Your task to perform on an android device: turn off notifications in google photos Image 0: 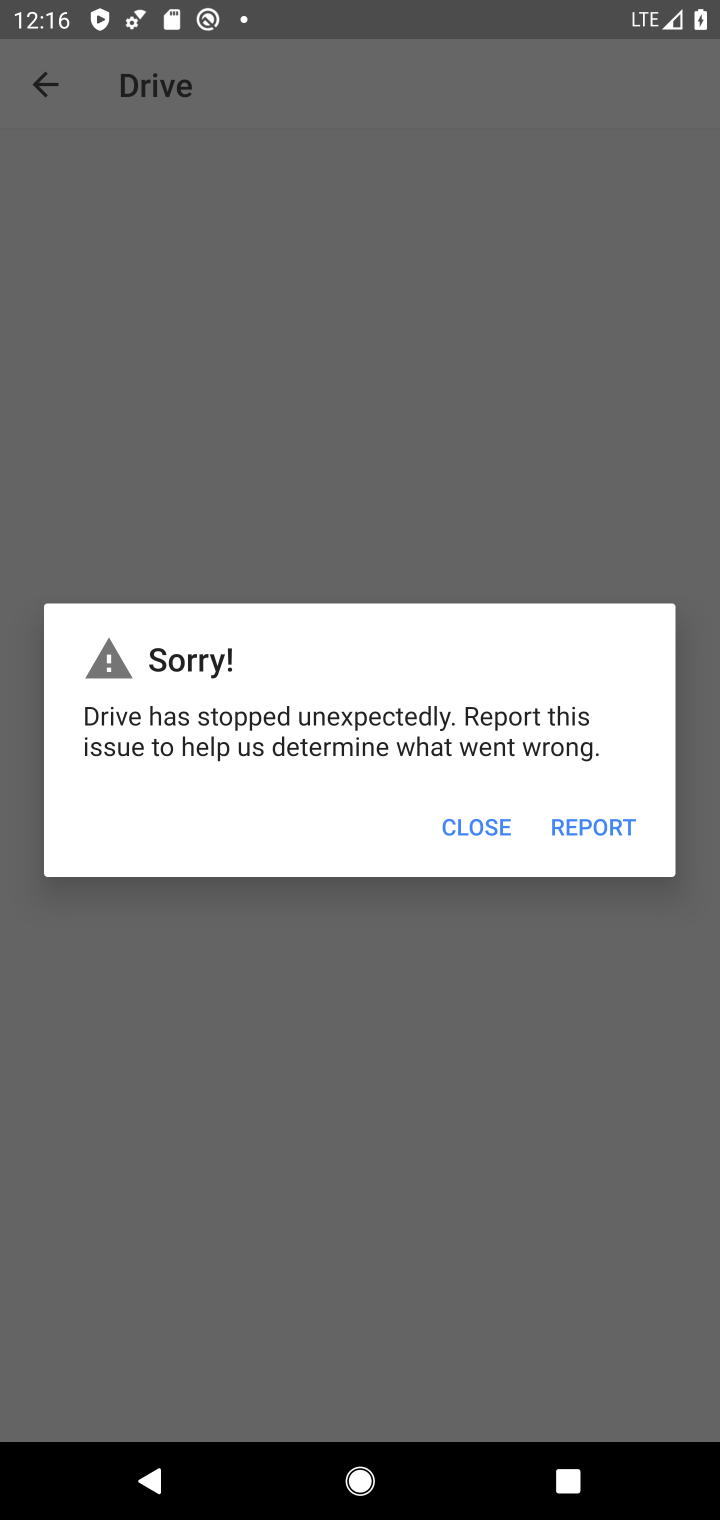
Step 0: press home button
Your task to perform on an android device: turn off notifications in google photos Image 1: 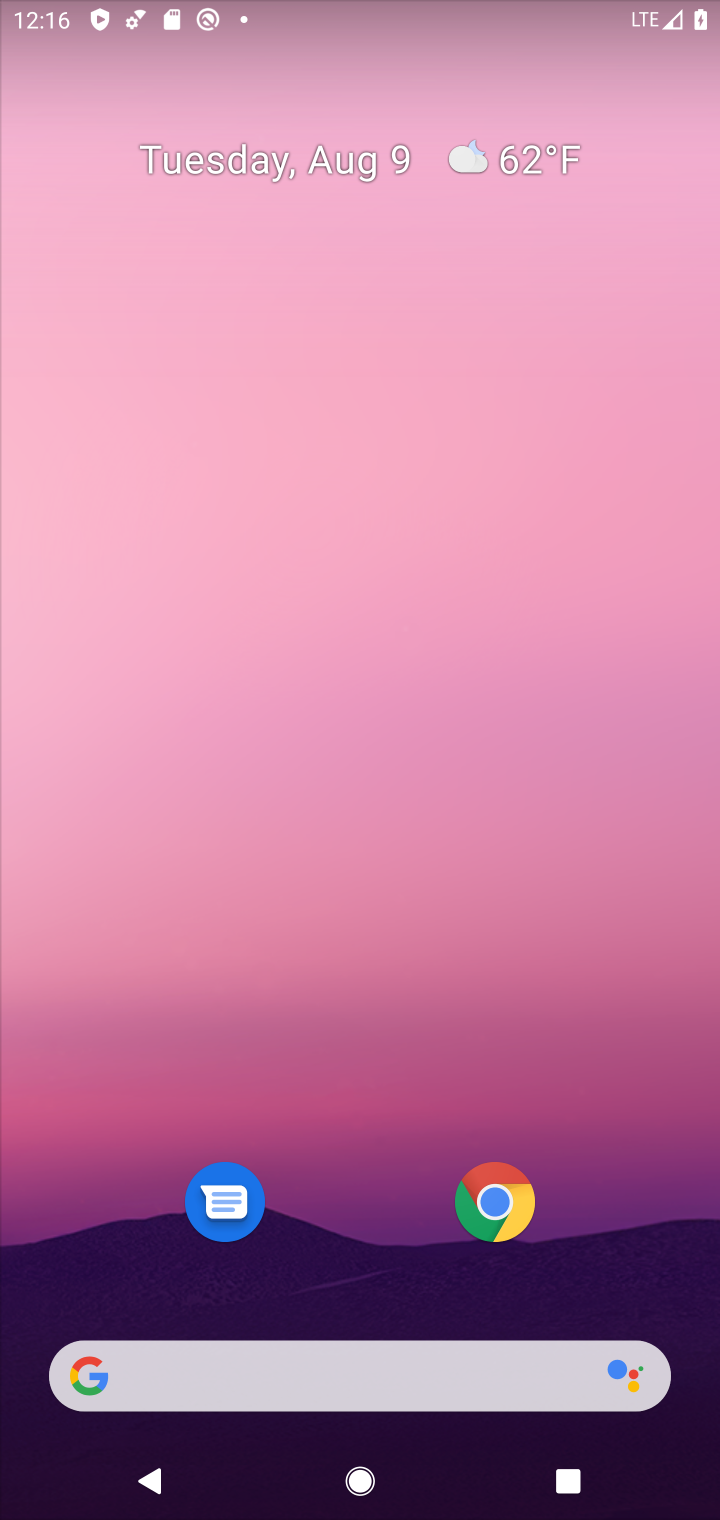
Step 1: drag from (354, 1044) to (364, 406)
Your task to perform on an android device: turn off notifications in google photos Image 2: 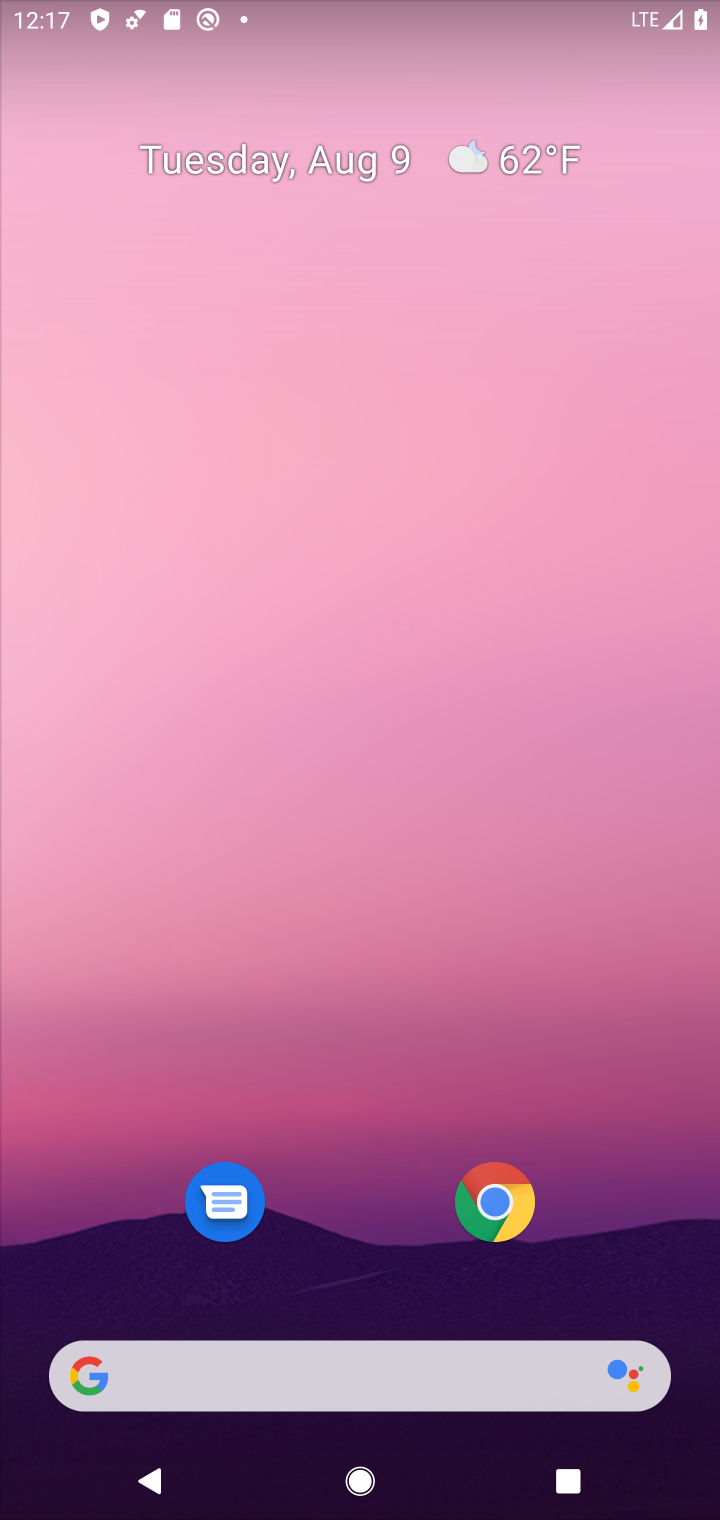
Step 2: click (370, 110)
Your task to perform on an android device: turn off notifications in google photos Image 3: 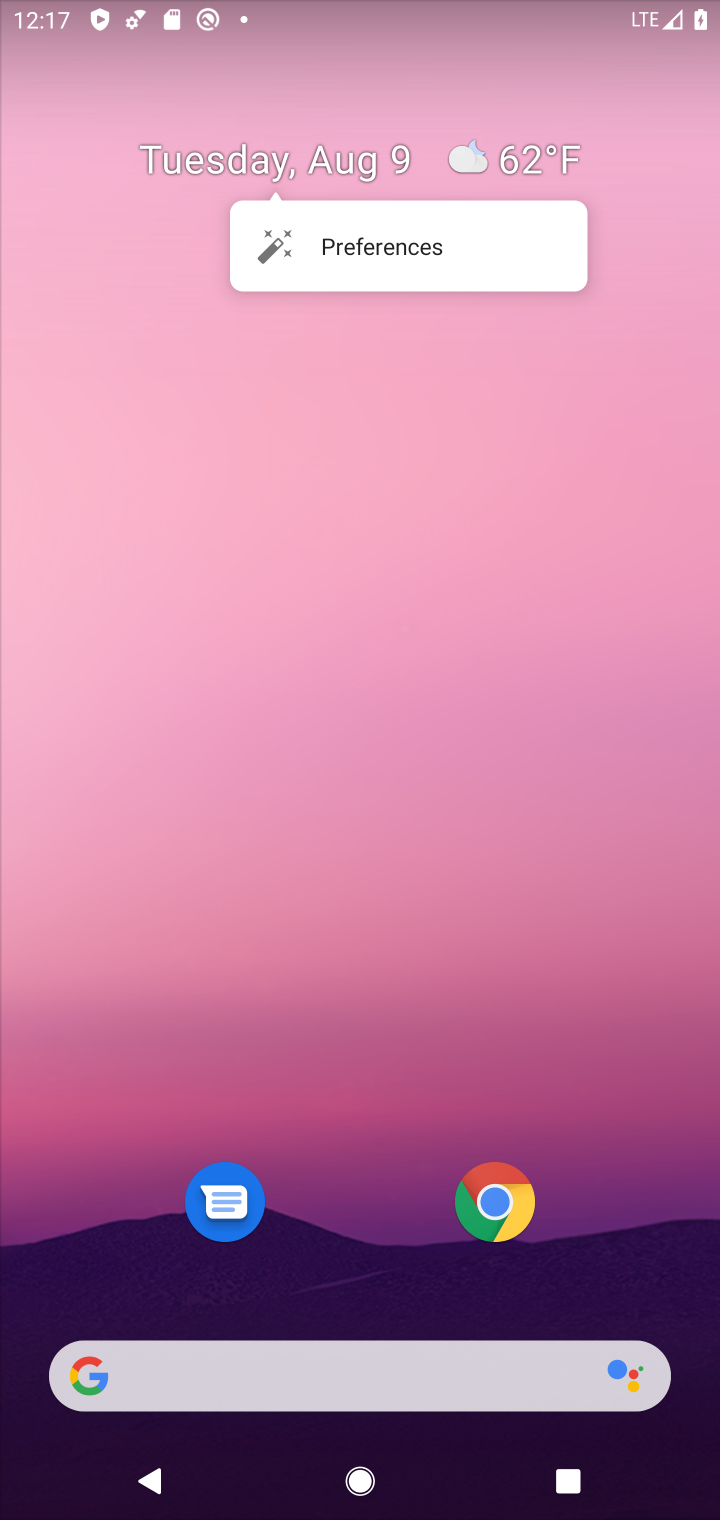
Step 3: drag from (387, 1161) to (316, 562)
Your task to perform on an android device: turn off notifications in google photos Image 4: 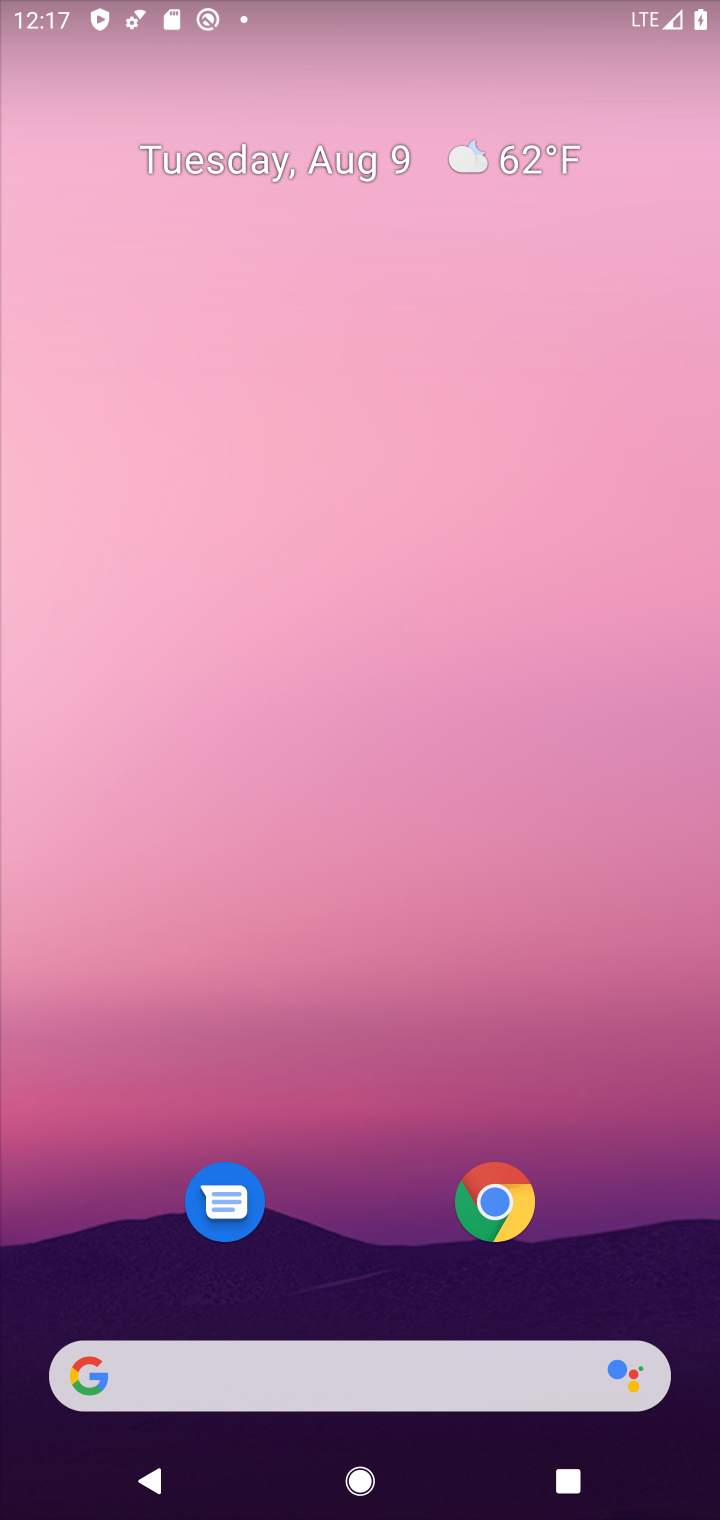
Step 4: click (252, 195)
Your task to perform on an android device: turn off notifications in google photos Image 5: 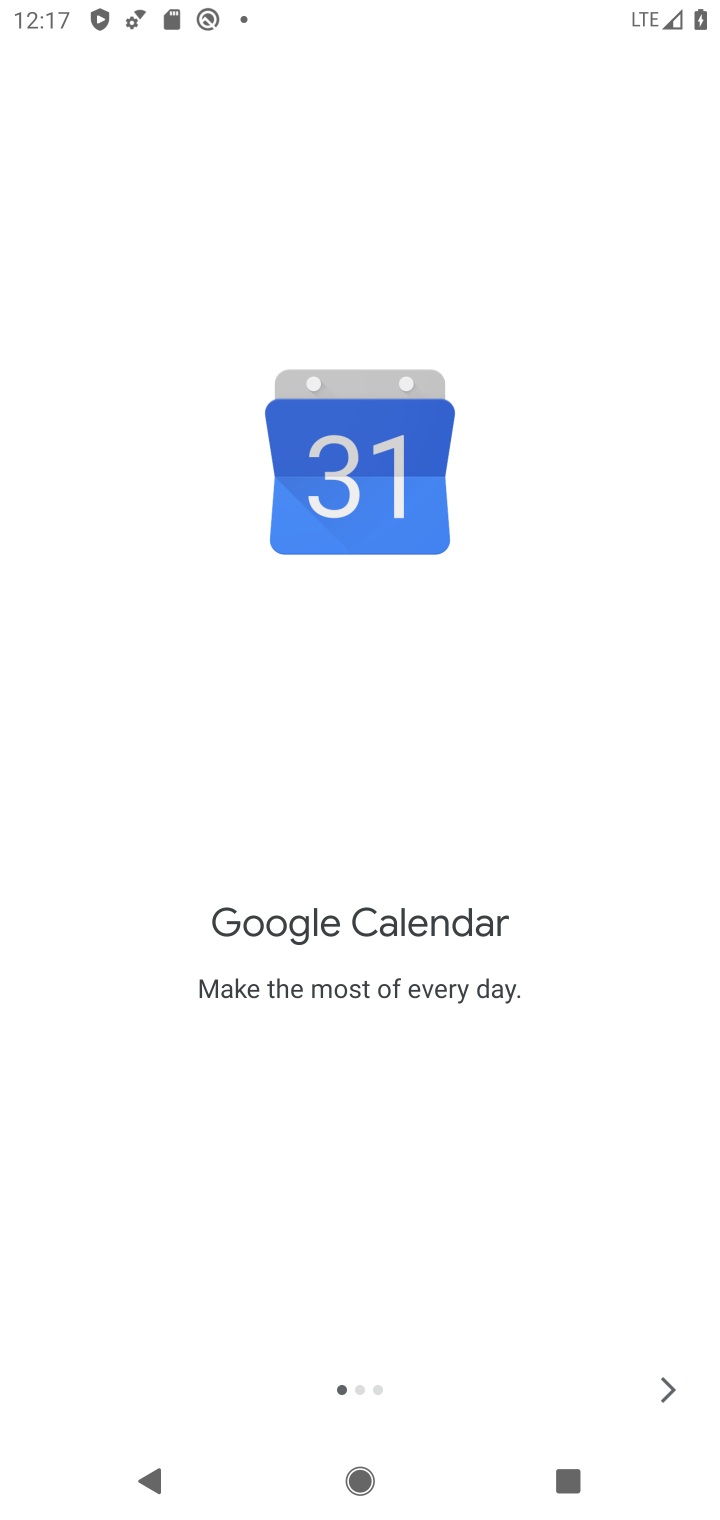
Step 5: click (663, 1375)
Your task to perform on an android device: turn off notifications in google photos Image 6: 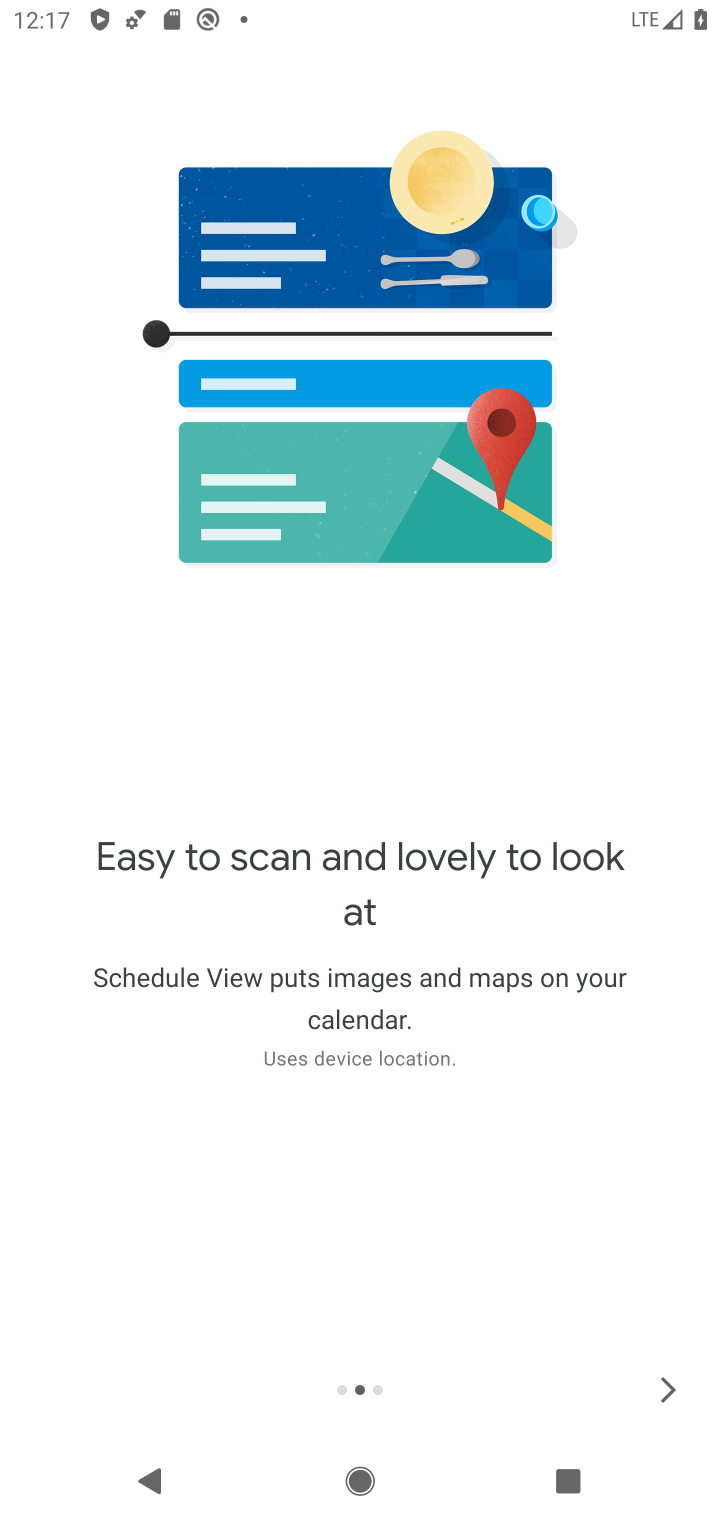
Step 6: click (663, 1375)
Your task to perform on an android device: turn off notifications in google photos Image 7: 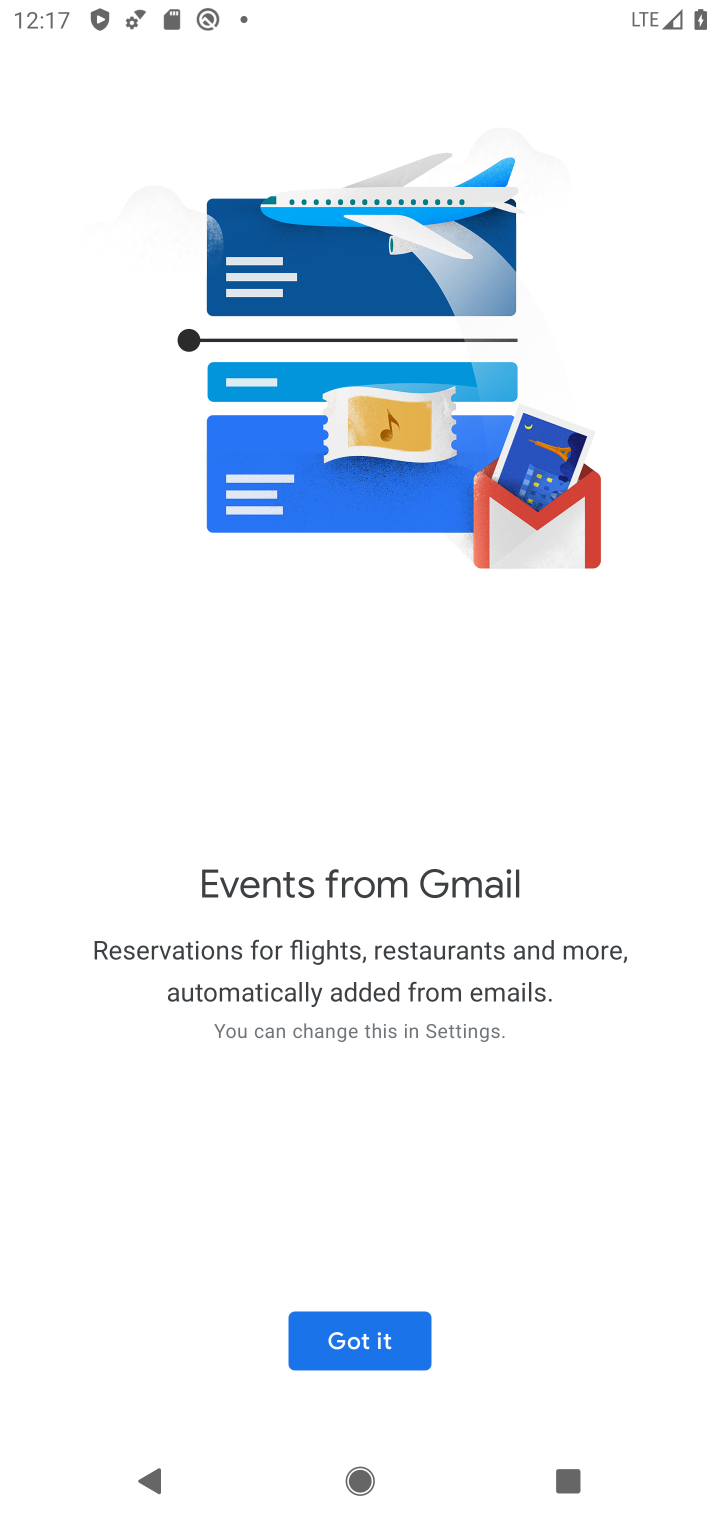
Step 7: click (370, 1340)
Your task to perform on an android device: turn off notifications in google photos Image 8: 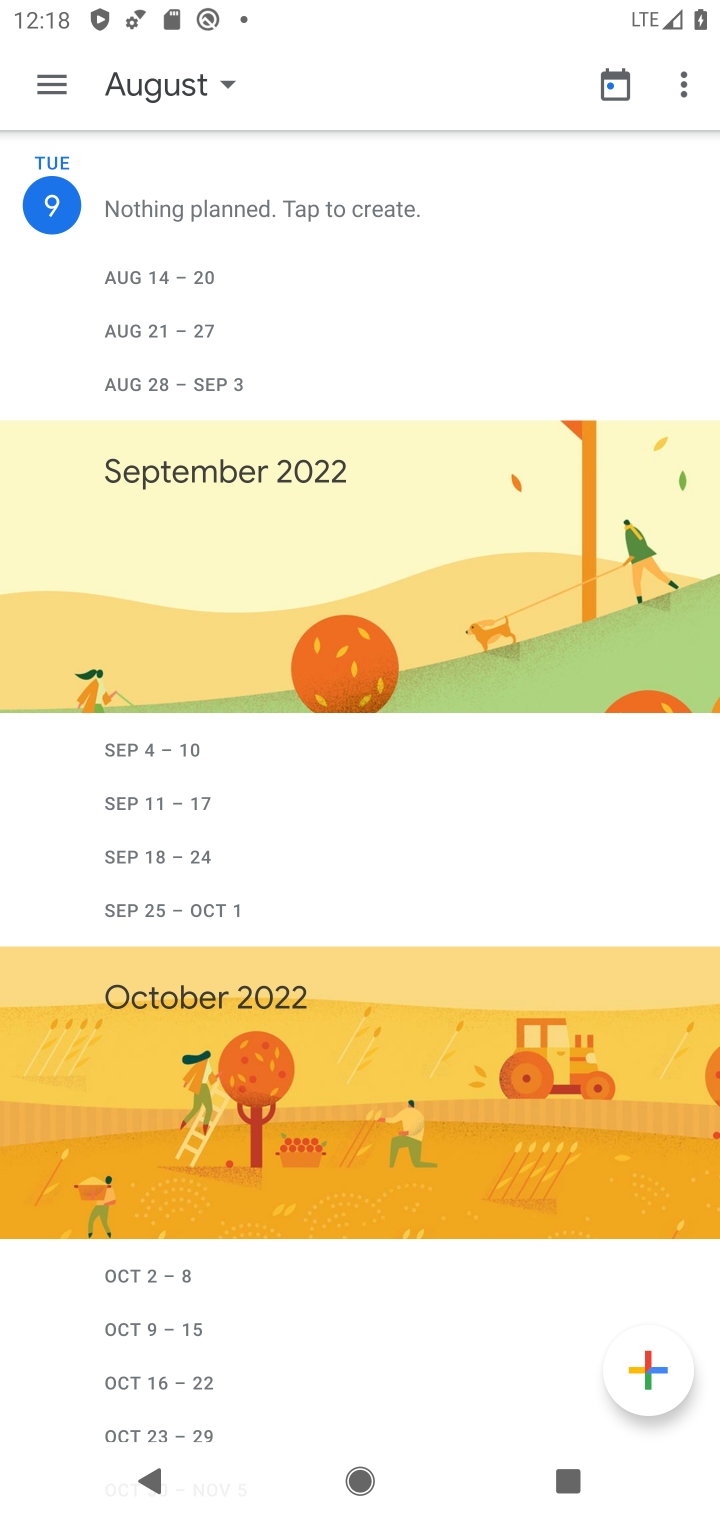
Step 8: press home button
Your task to perform on an android device: turn off notifications in google photos Image 9: 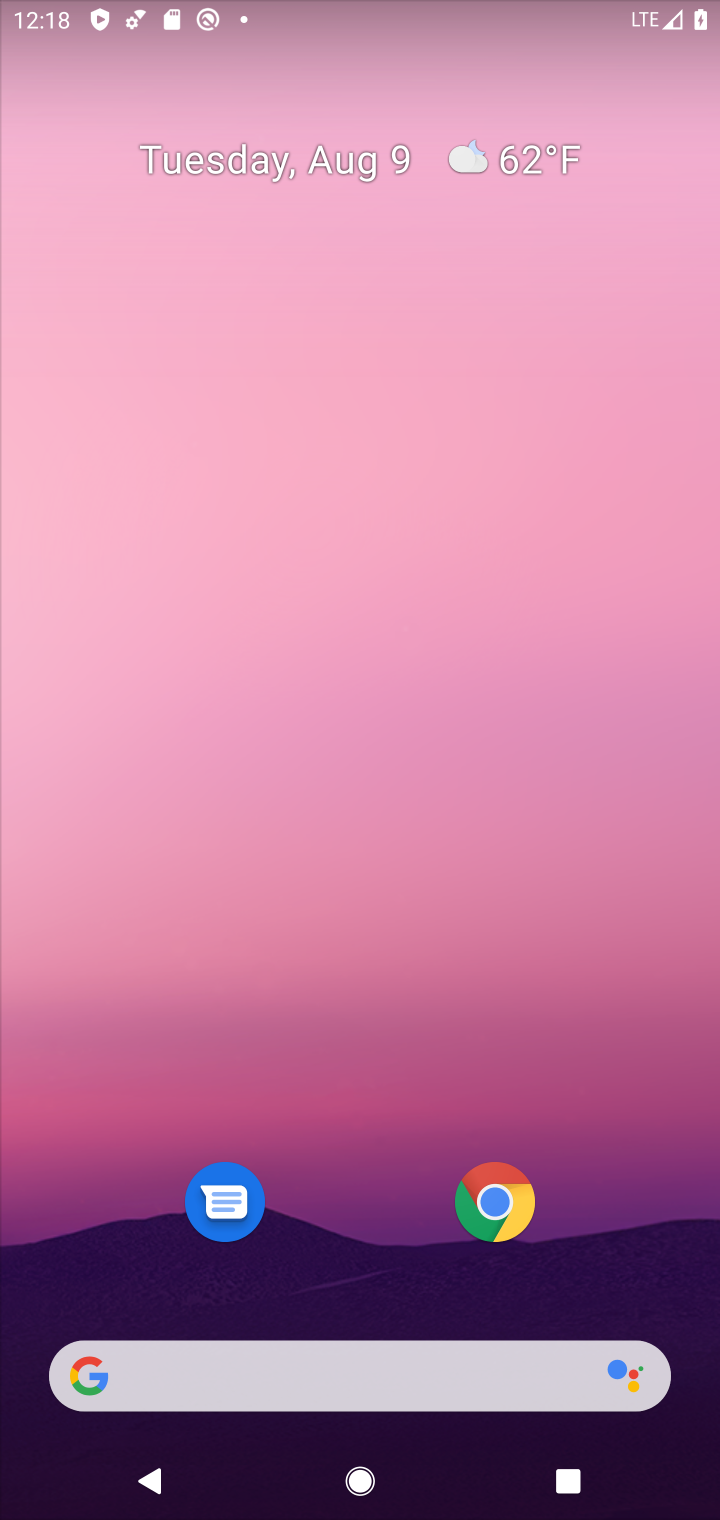
Step 9: drag from (330, 1048) to (141, 52)
Your task to perform on an android device: turn off notifications in google photos Image 10: 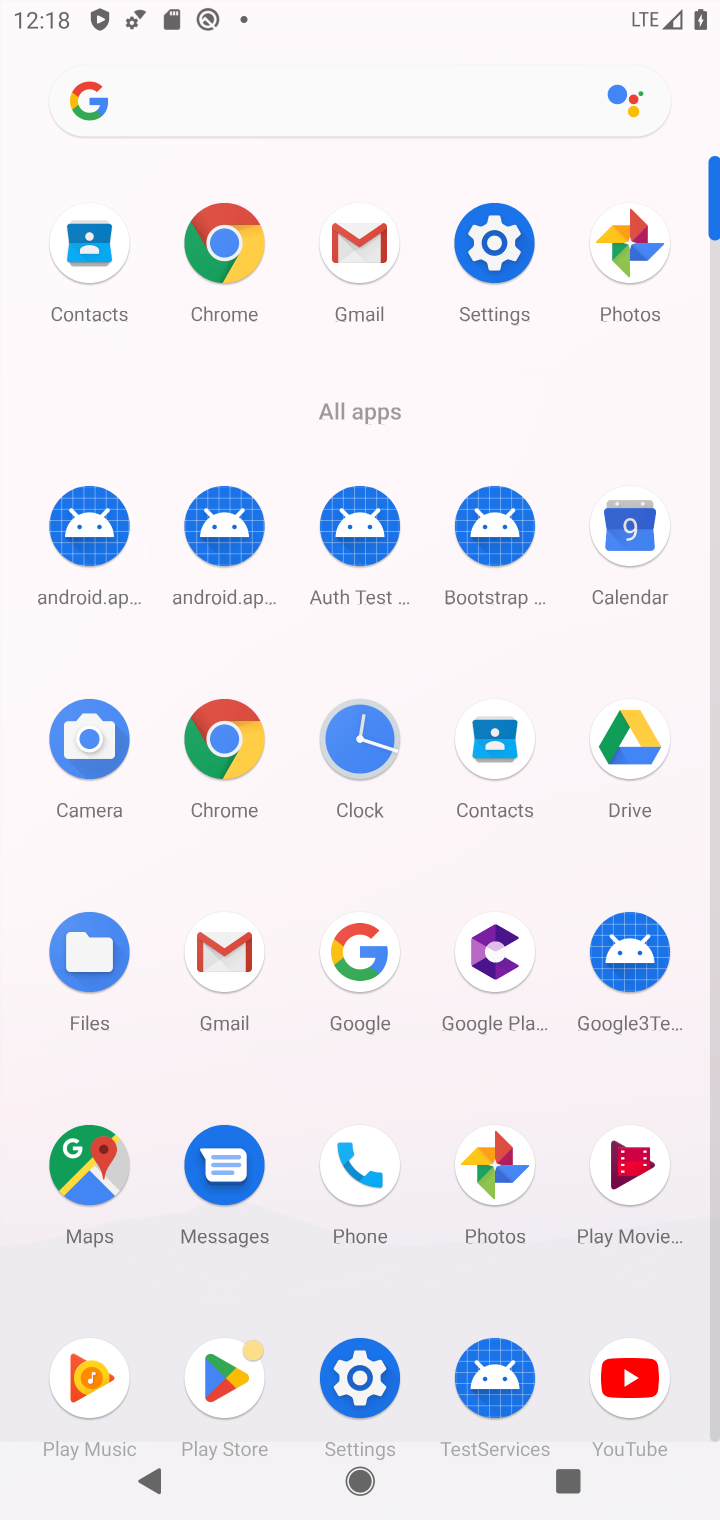
Step 10: click (488, 1275)
Your task to perform on an android device: turn off notifications in google photos Image 11: 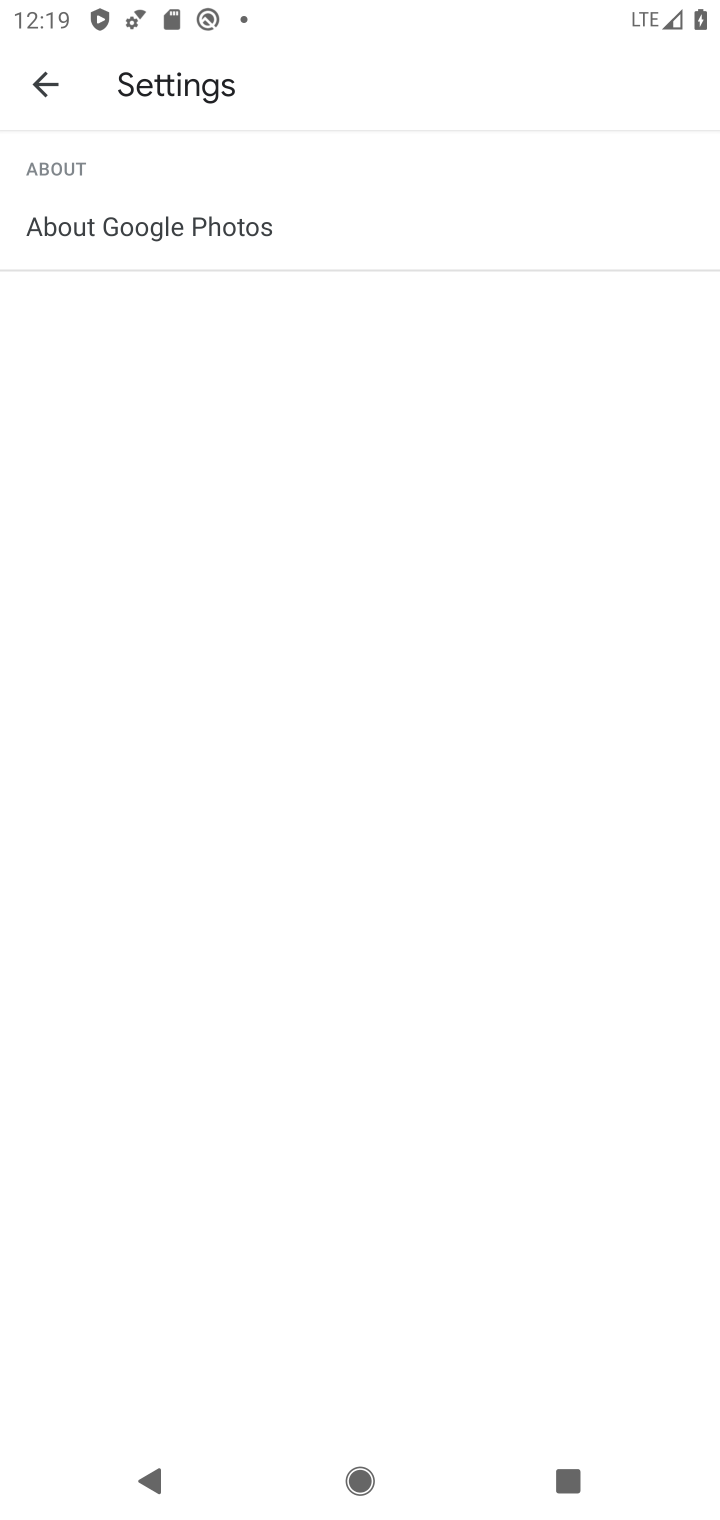
Step 11: click (64, 76)
Your task to perform on an android device: turn off notifications in google photos Image 12: 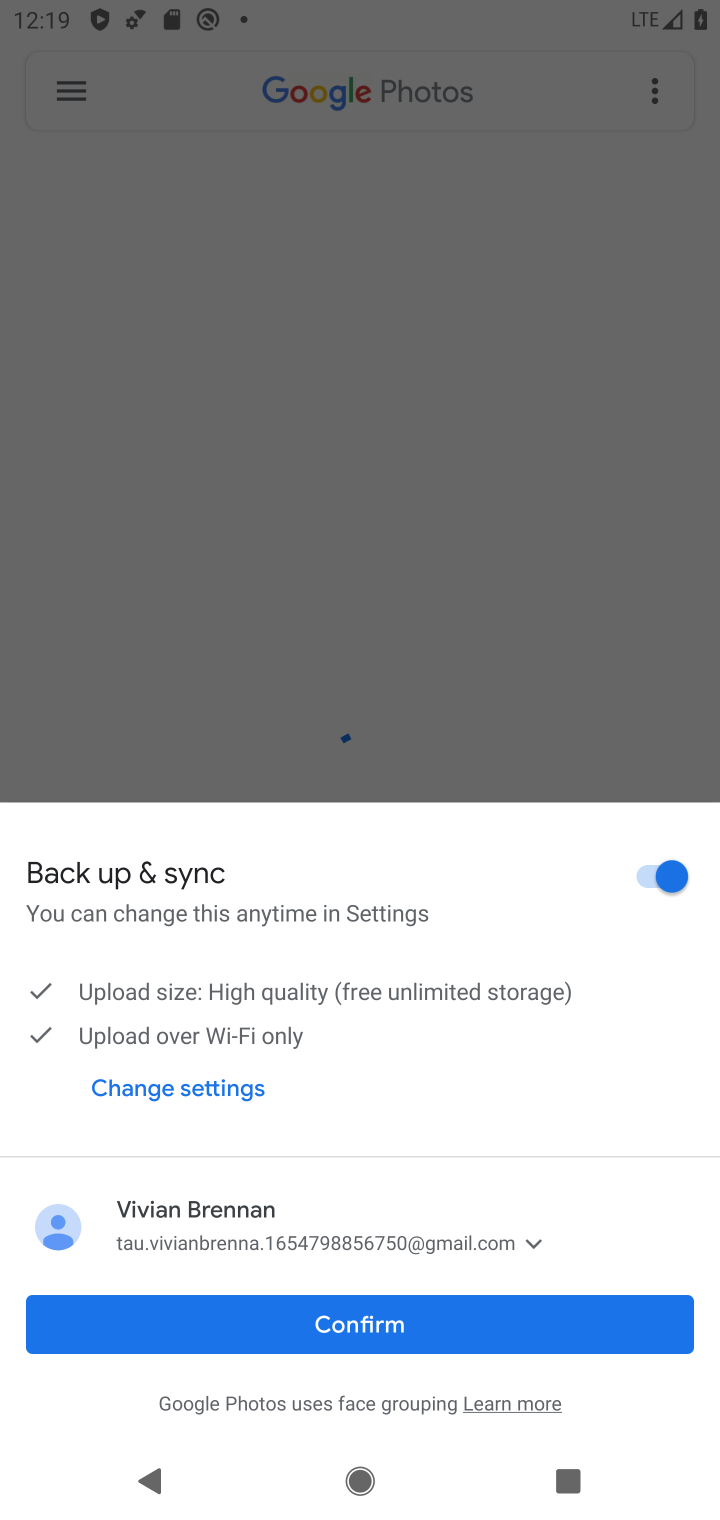
Step 12: click (431, 1317)
Your task to perform on an android device: turn off notifications in google photos Image 13: 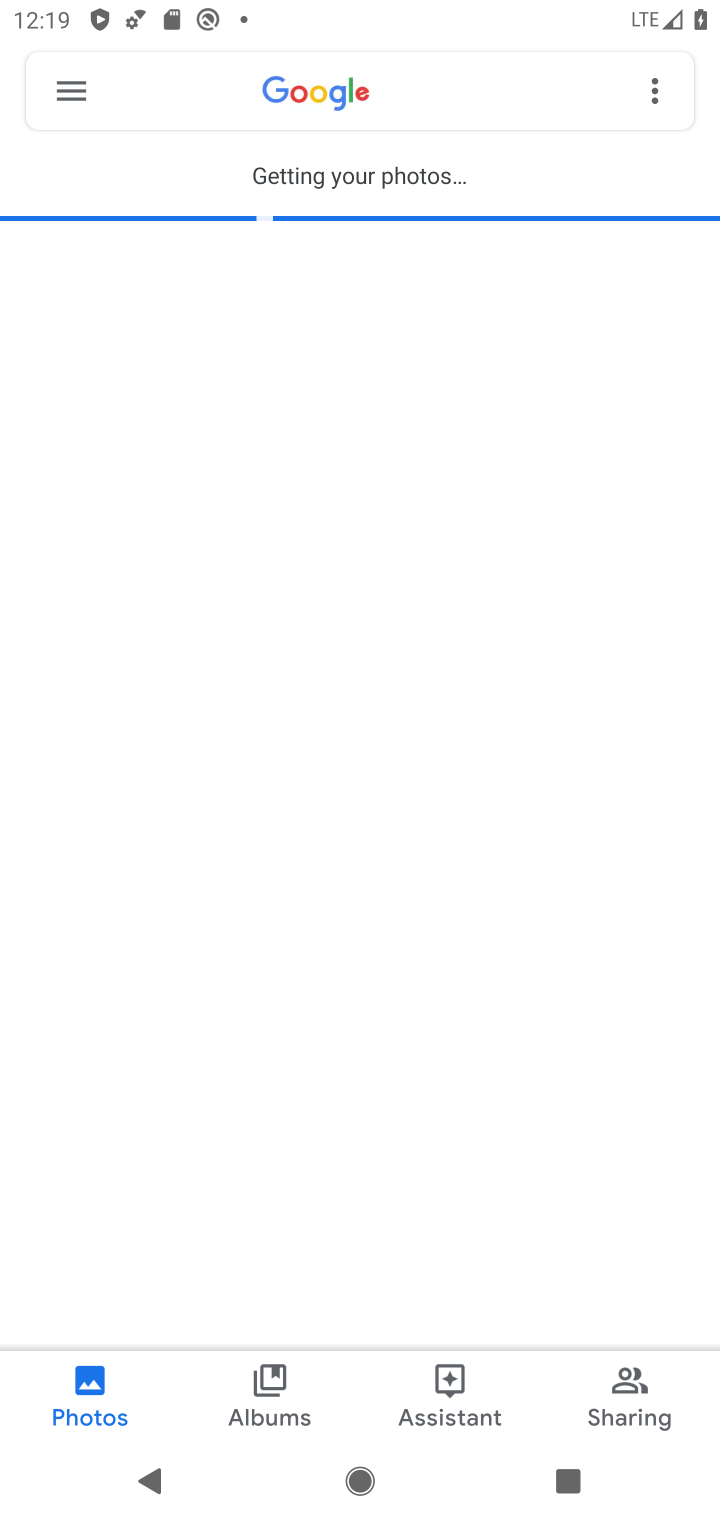
Step 13: click (54, 81)
Your task to perform on an android device: turn off notifications in google photos Image 14: 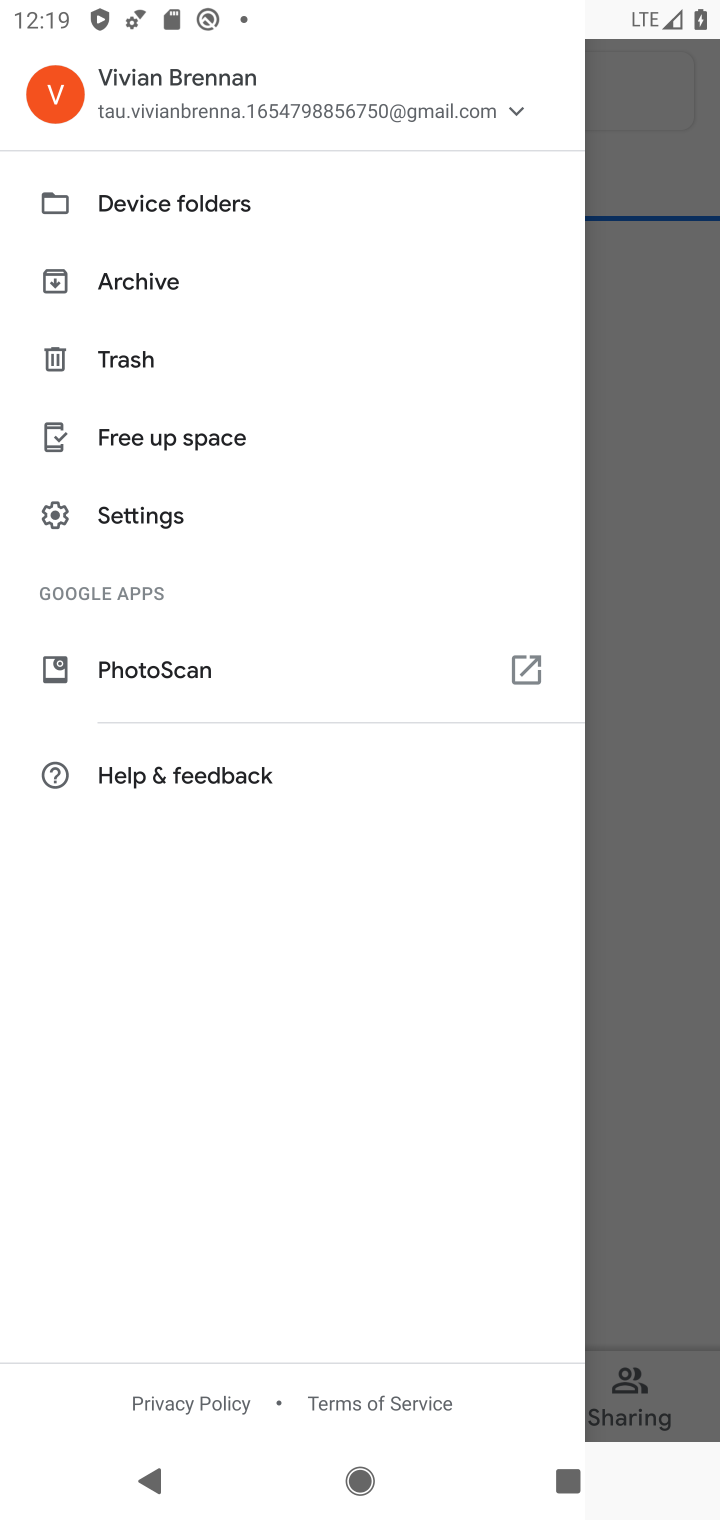
Step 14: click (178, 516)
Your task to perform on an android device: turn off notifications in google photos Image 15: 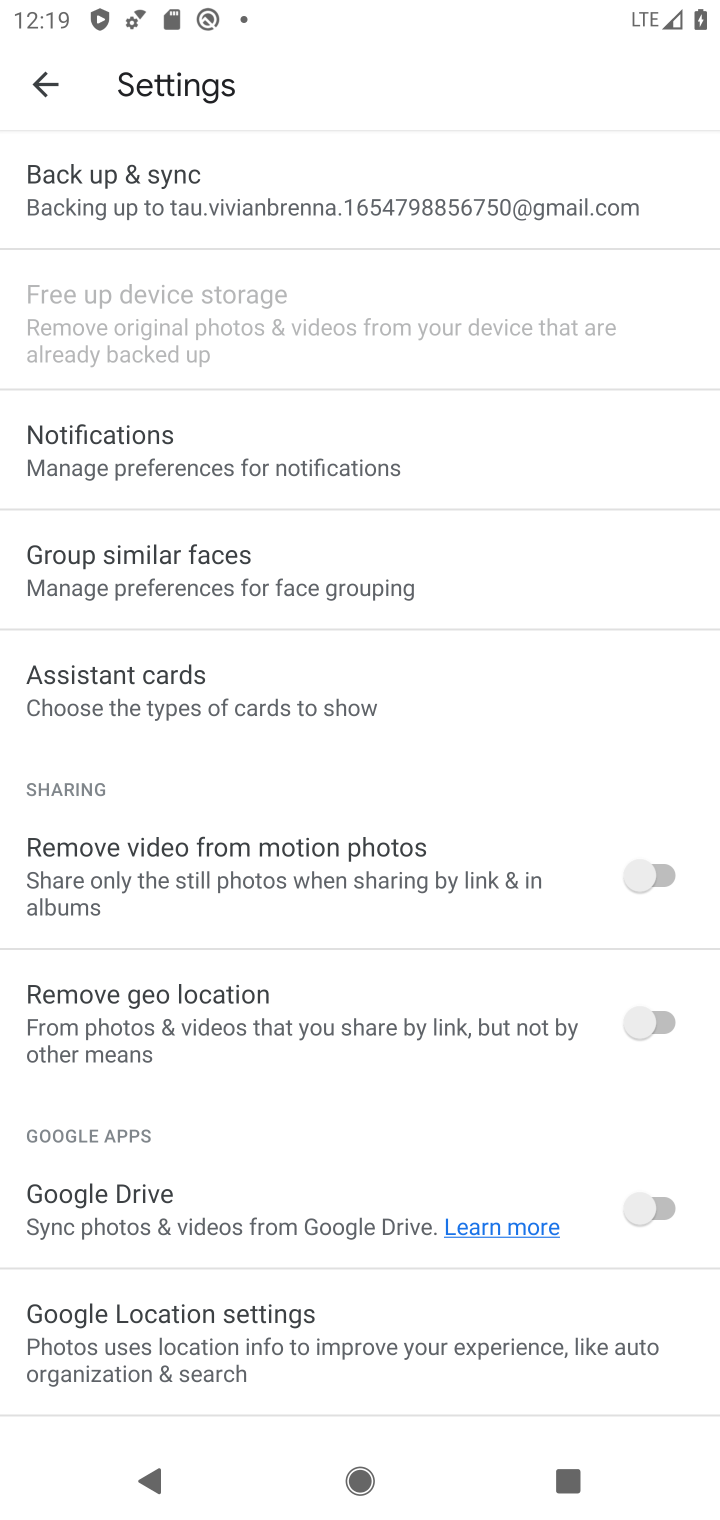
Step 15: click (177, 453)
Your task to perform on an android device: turn off notifications in google photos Image 16: 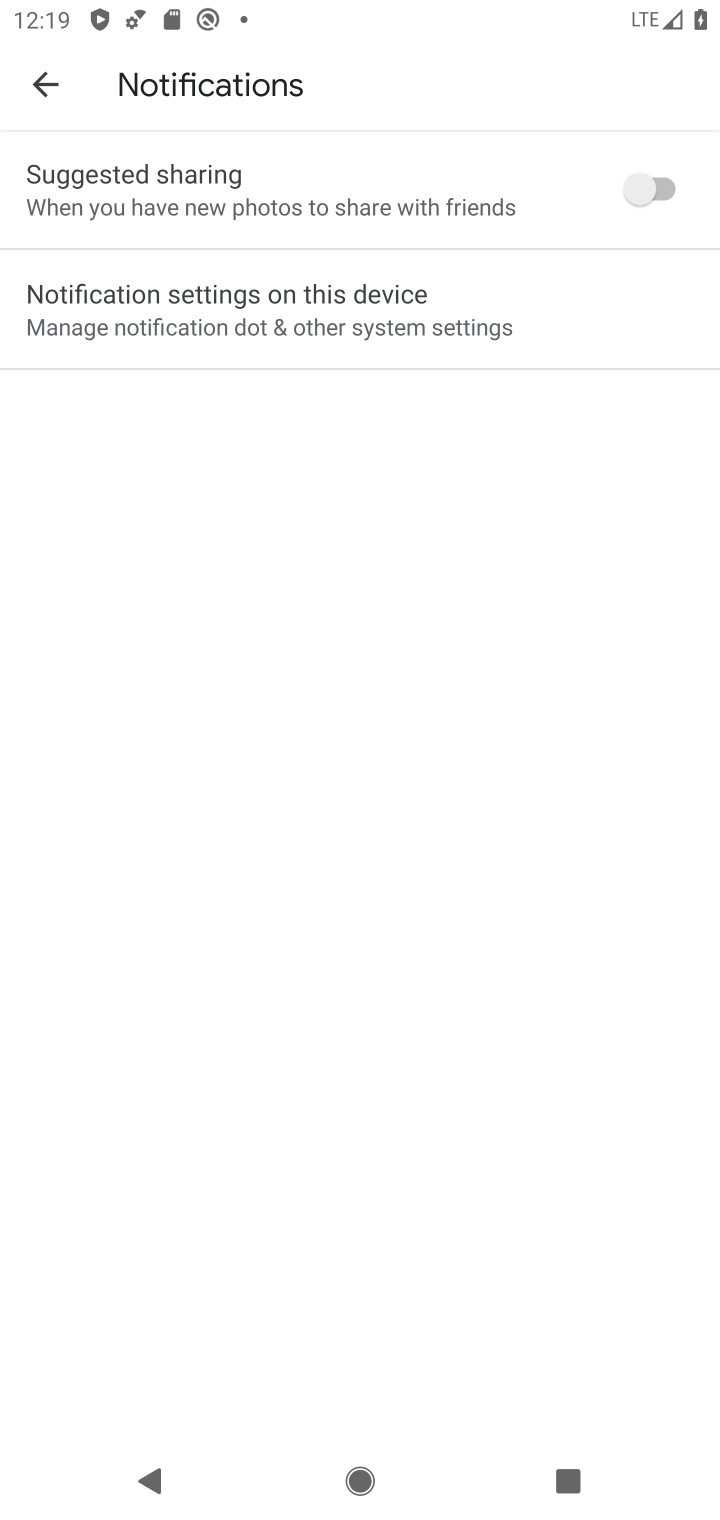
Step 16: click (304, 318)
Your task to perform on an android device: turn off notifications in google photos Image 17: 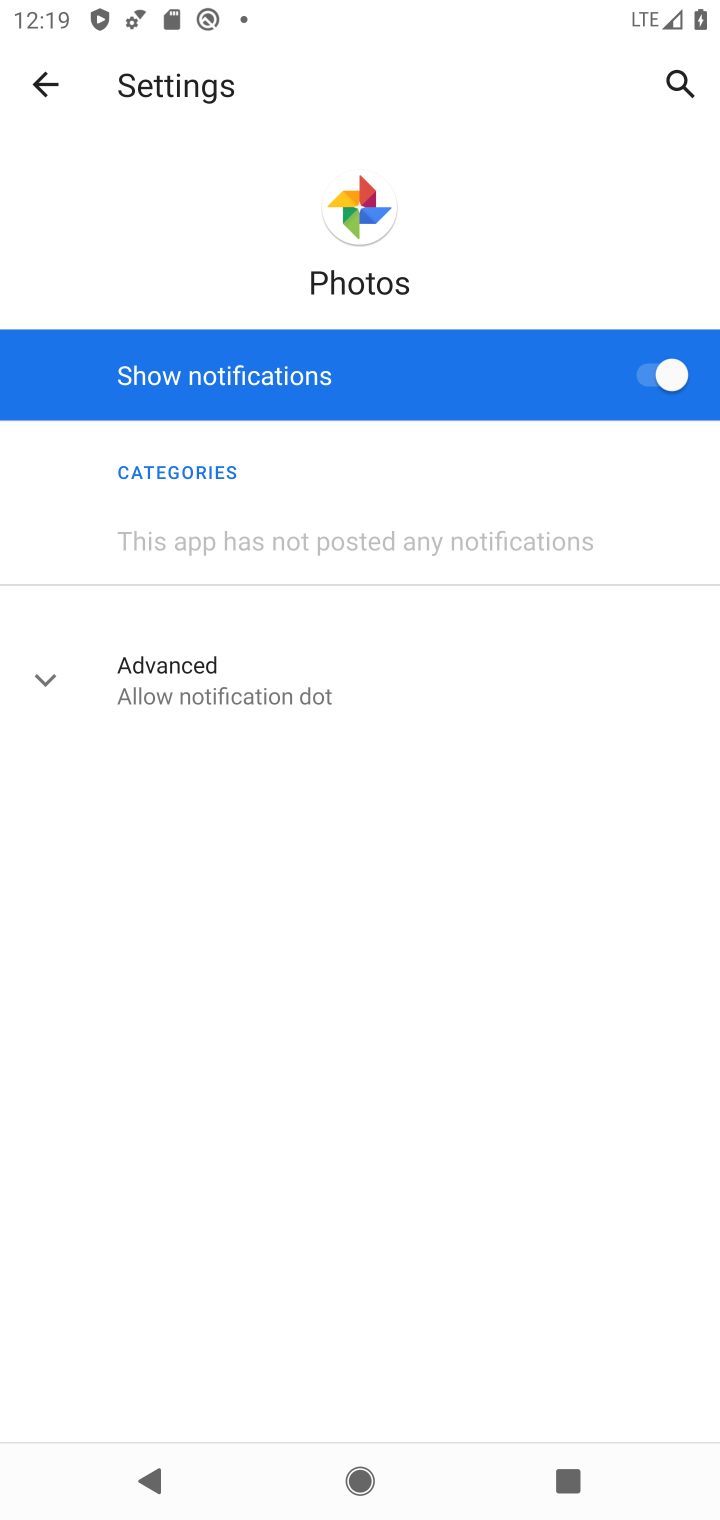
Step 17: task complete